Your task to perform on an android device: Toggle the flashlight Image 0: 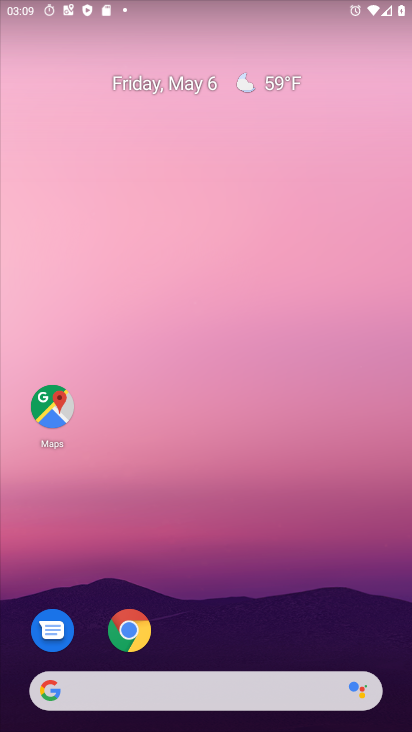
Step 0: drag from (240, 621) to (239, 214)
Your task to perform on an android device: Toggle the flashlight Image 1: 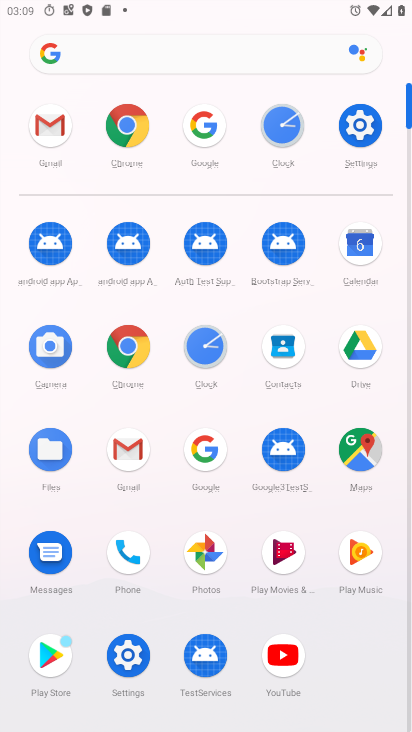
Step 1: click (355, 136)
Your task to perform on an android device: Toggle the flashlight Image 2: 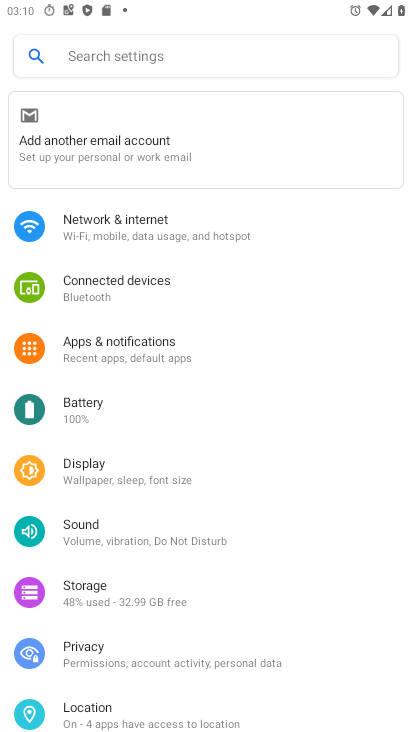
Step 2: drag from (181, 570) to (197, 294)
Your task to perform on an android device: Toggle the flashlight Image 3: 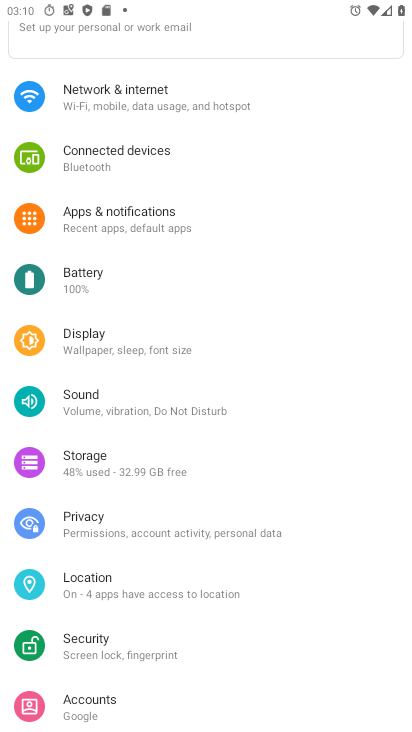
Step 3: click (139, 229)
Your task to perform on an android device: Toggle the flashlight Image 4: 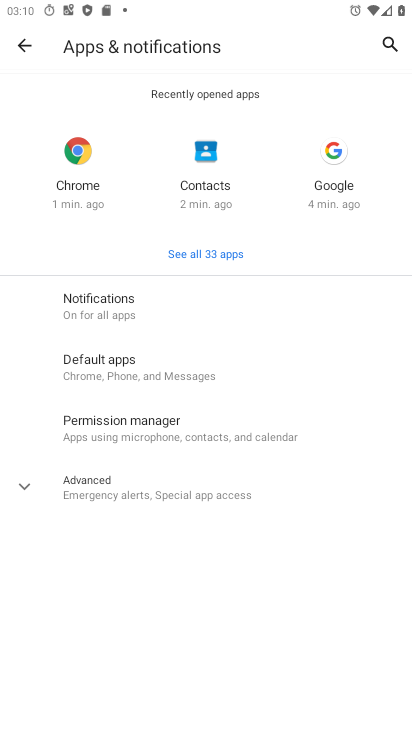
Step 4: task complete